Your task to perform on an android device: turn notification dots off Image 0: 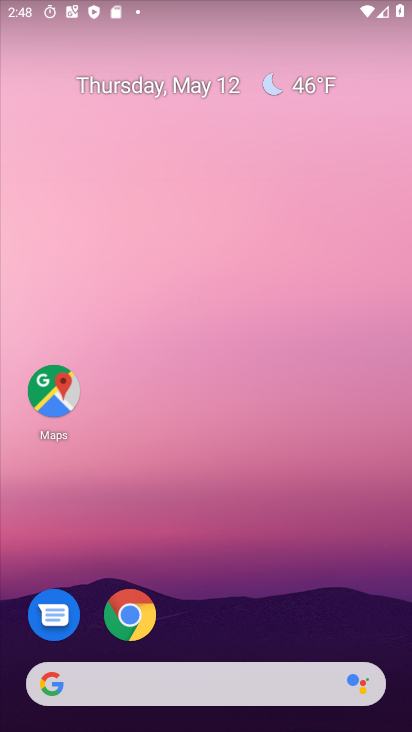
Step 0: drag from (245, 615) to (274, 152)
Your task to perform on an android device: turn notification dots off Image 1: 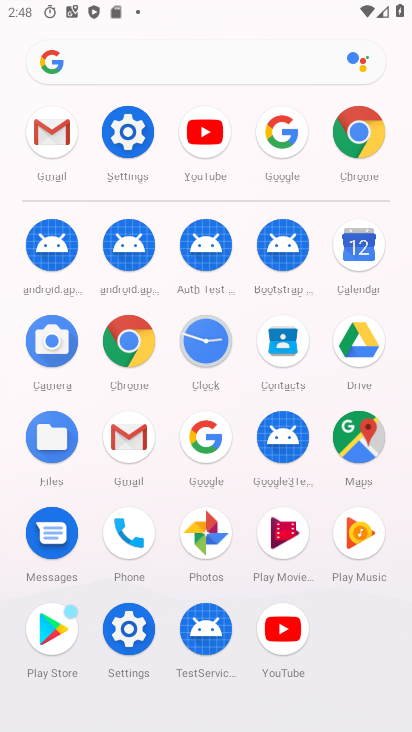
Step 1: click (132, 121)
Your task to perform on an android device: turn notification dots off Image 2: 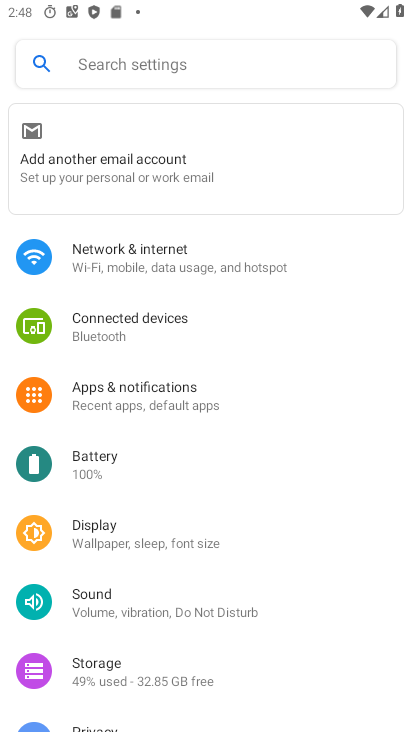
Step 2: click (159, 388)
Your task to perform on an android device: turn notification dots off Image 3: 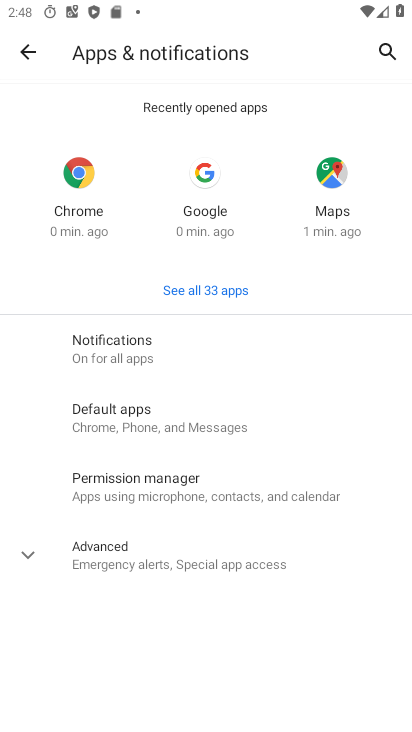
Step 3: click (115, 337)
Your task to perform on an android device: turn notification dots off Image 4: 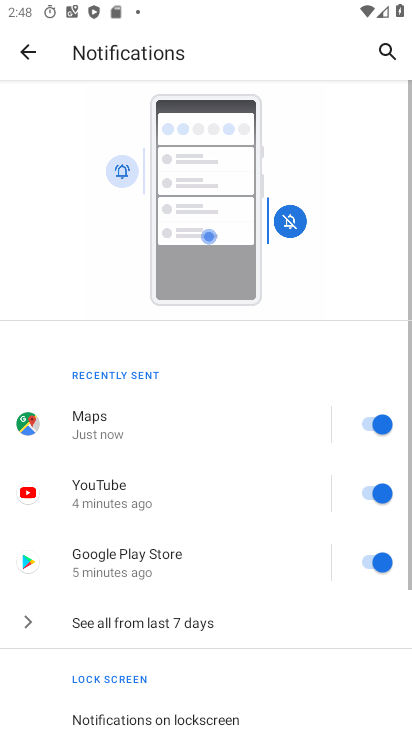
Step 4: drag from (221, 549) to (260, 87)
Your task to perform on an android device: turn notification dots off Image 5: 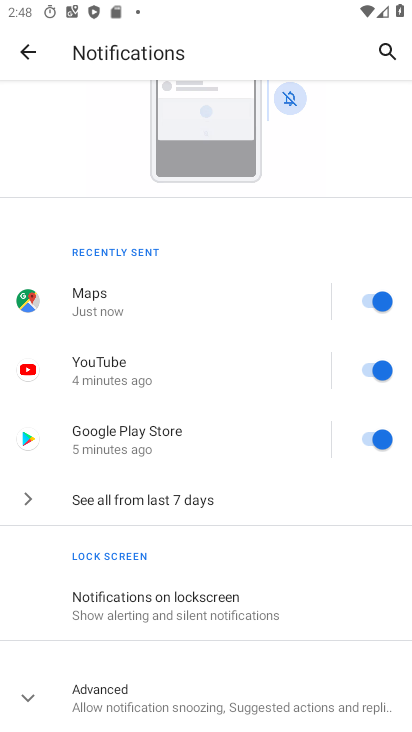
Step 5: click (129, 690)
Your task to perform on an android device: turn notification dots off Image 6: 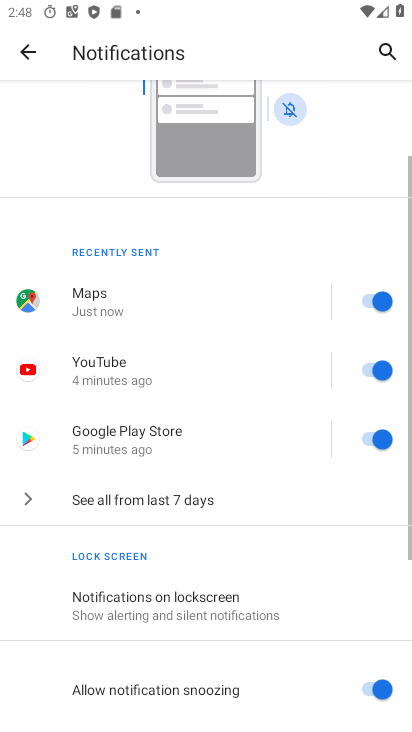
Step 6: drag from (212, 638) to (243, 207)
Your task to perform on an android device: turn notification dots off Image 7: 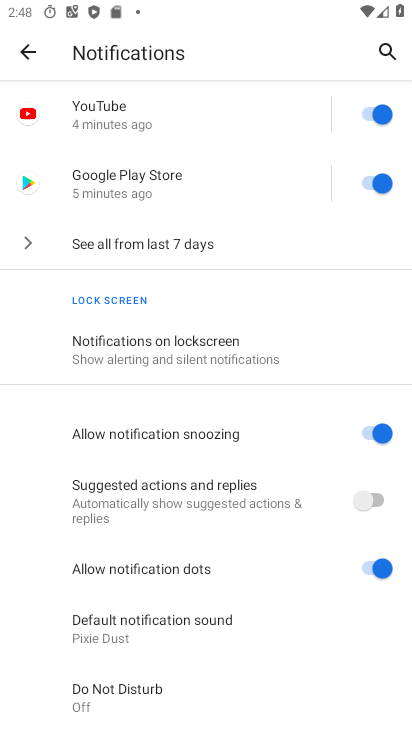
Step 7: click (365, 569)
Your task to perform on an android device: turn notification dots off Image 8: 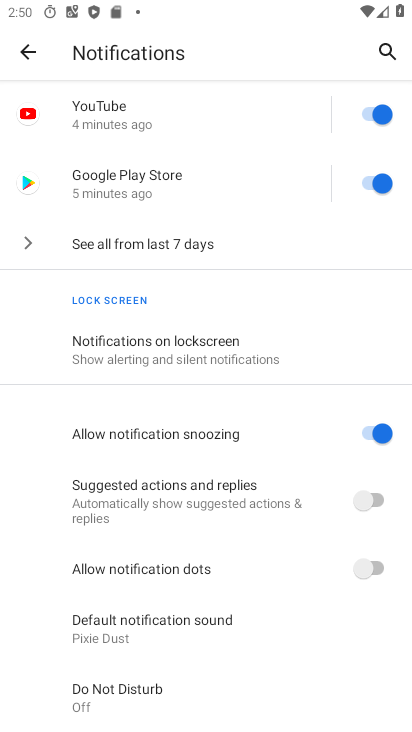
Step 8: task complete